Your task to perform on an android device: Show the shopping cart on costco. Add "macbook pro" to the cart on costco Image 0: 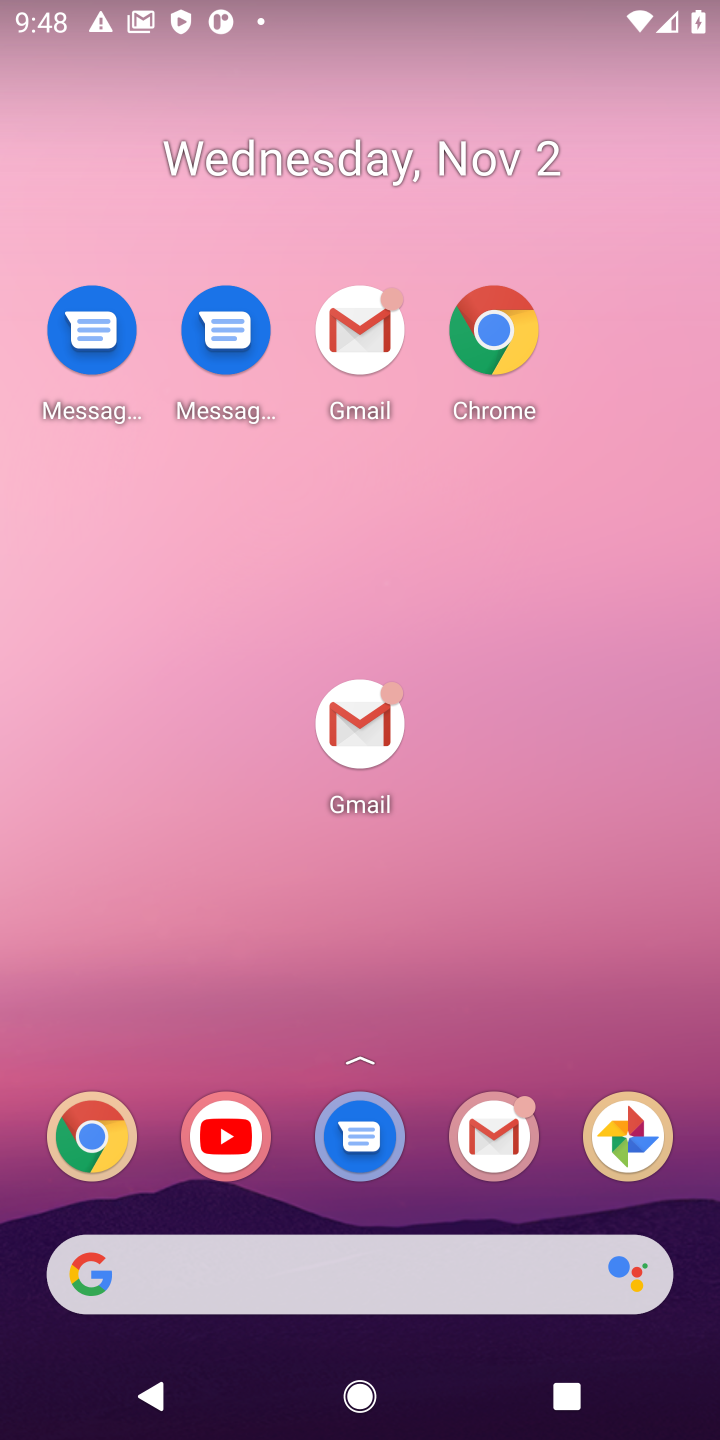
Step 0: drag from (474, 1147) to (428, 331)
Your task to perform on an android device: Show the shopping cart on costco. Add "macbook pro" to the cart on costco Image 1: 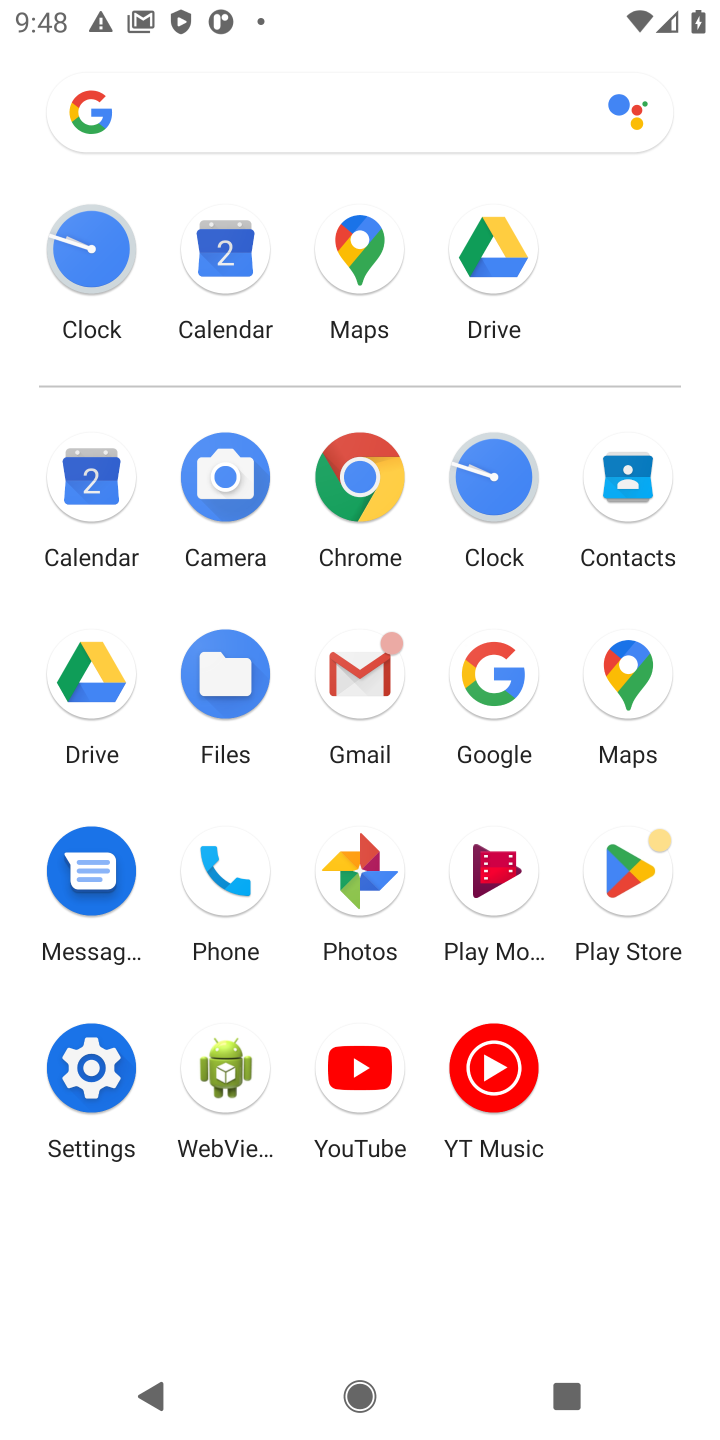
Step 1: click (476, 660)
Your task to perform on an android device: Show the shopping cart on costco. Add "macbook pro" to the cart on costco Image 2: 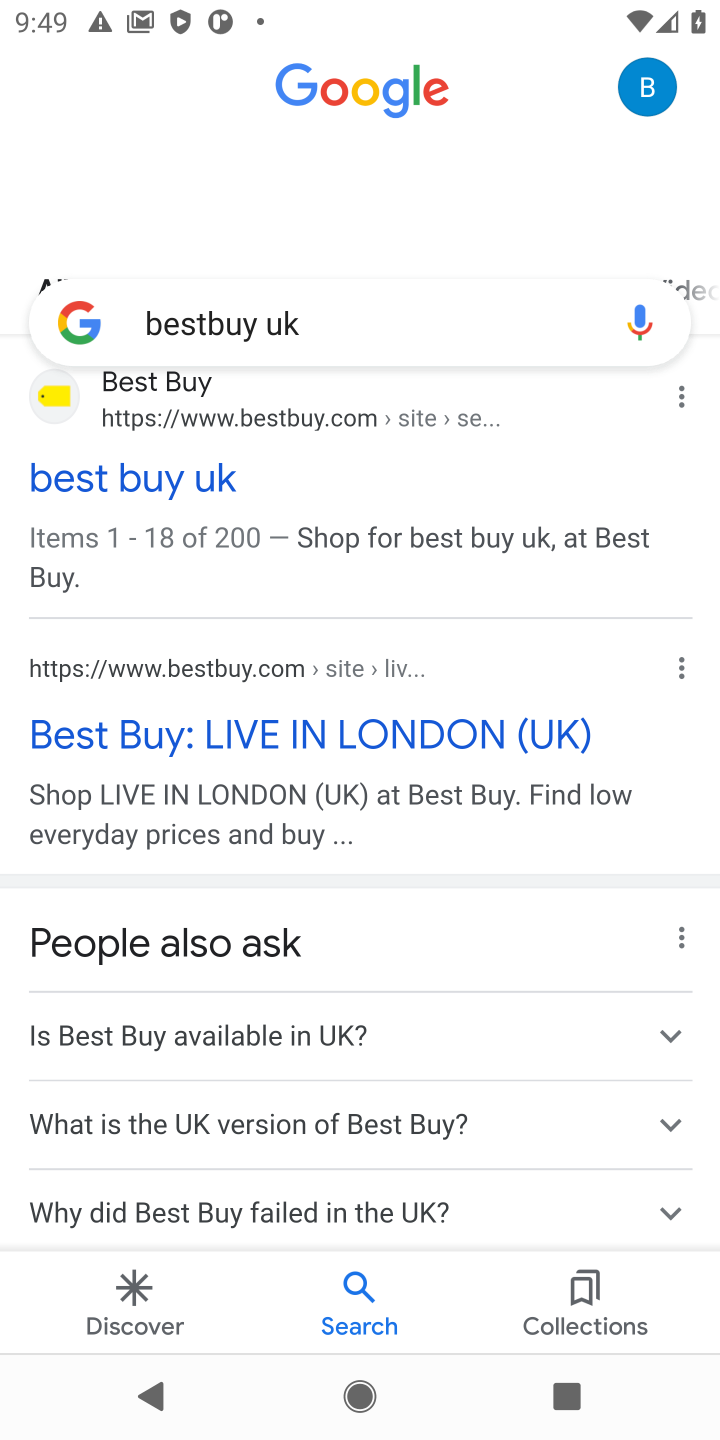
Step 2: click (319, 325)
Your task to perform on an android device: Show the shopping cart on costco. Add "macbook pro" to the cart on costco Image 3: 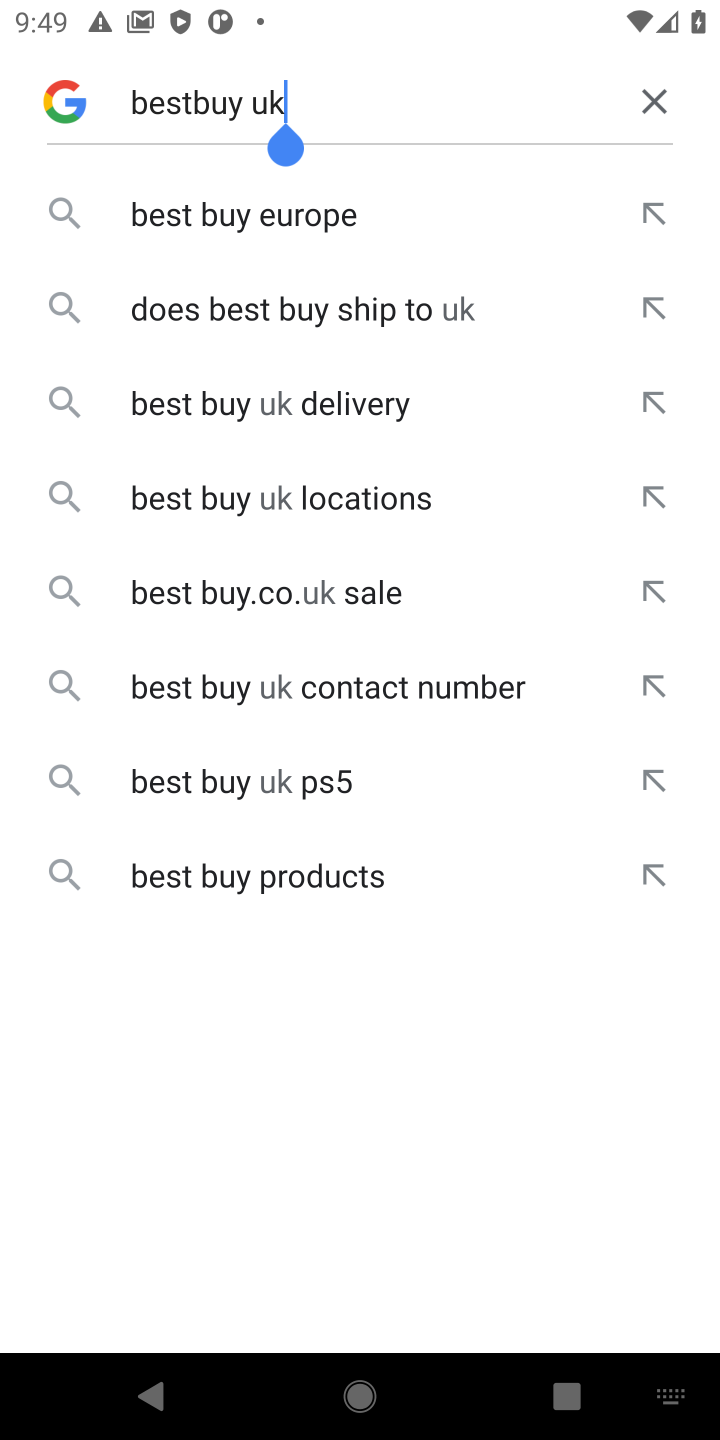
Step 3: click (666, 104)
Your task to perform on an android device: Show the shopping cart on costco. Add "macbook pro" to the cart on costco Image 4: 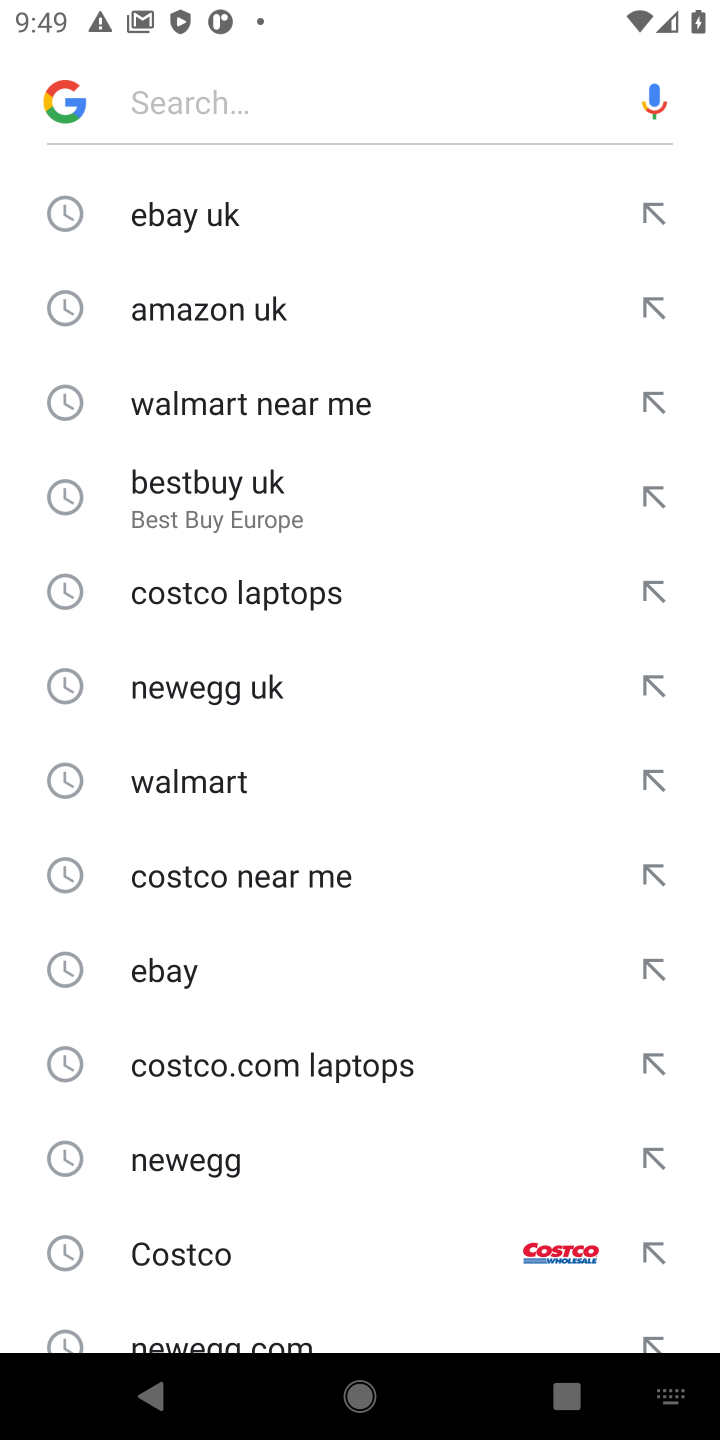
Step 4: drag from (278, 121) to (346, 66)
Your task to perform on an android device: Show the shopping cart on costco. Add "macbook pro" to the cart on costco Image 5: 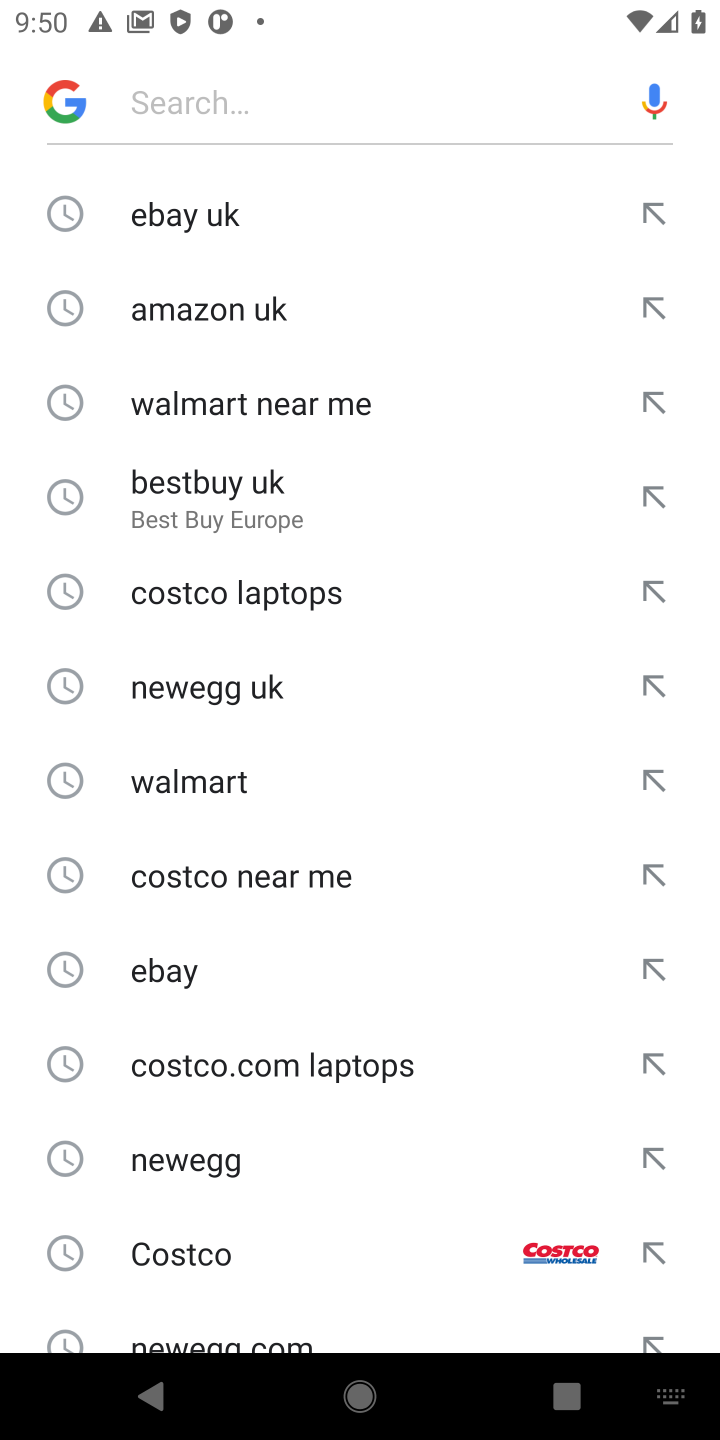
Step 5: click (212, 85)
Your task to perform on an android device: Show the shopping cart on costco. Add "macbook pro" to the cart on costco Image 6: 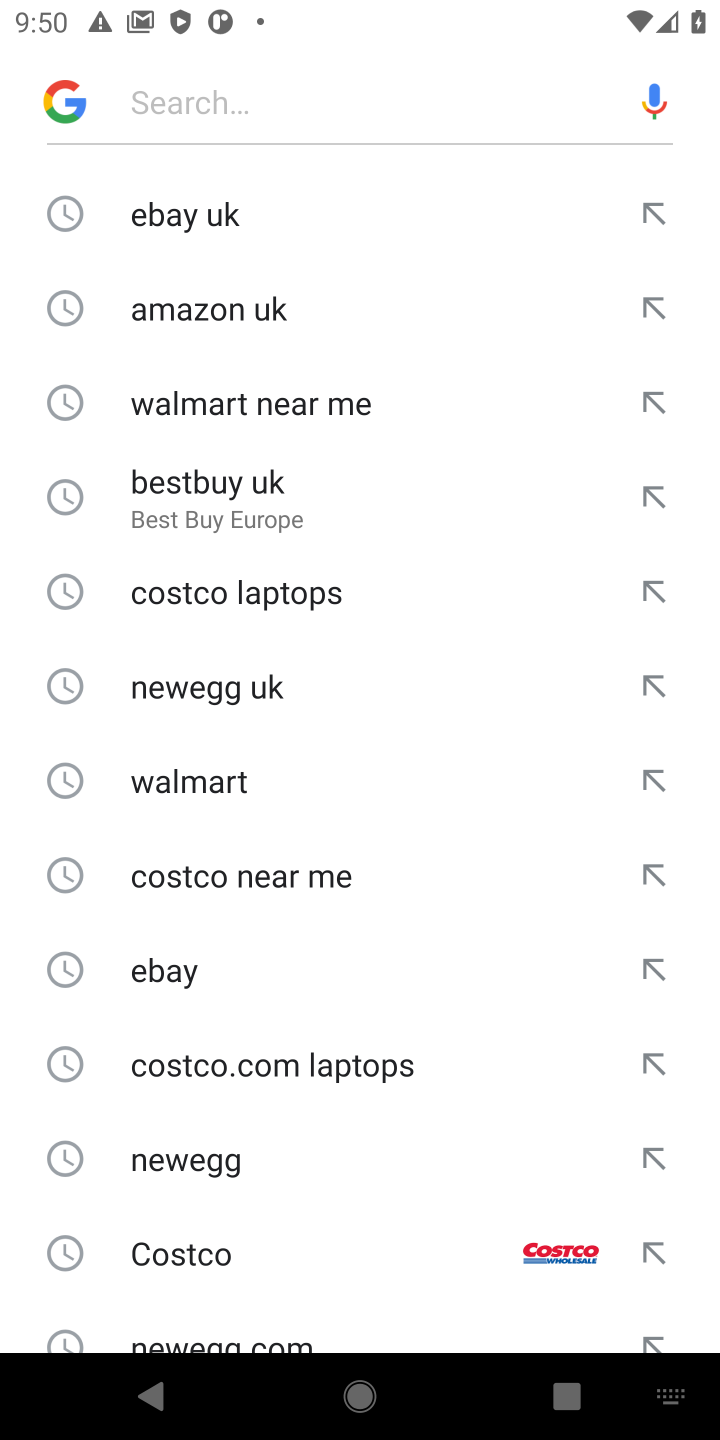
Step 6: type "costco "
Your task to perform on an android device: Show the shopping cart on costco. Add "macbook pro" to the cart on costco Image 7: 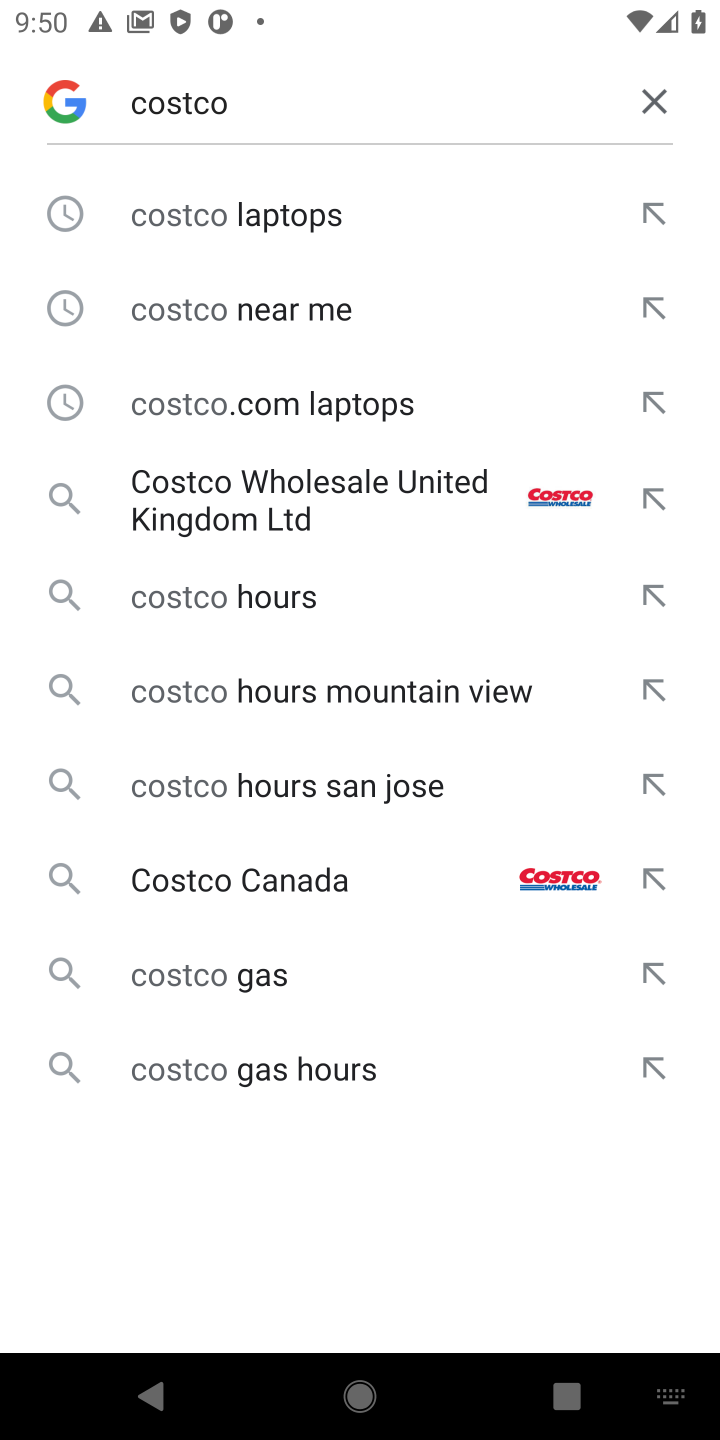
Step 7: click (268, 323)
Your task to perform on an android device: Show the shopping cart on costco. Add "macbook pro" to the cart on costco Image 8: 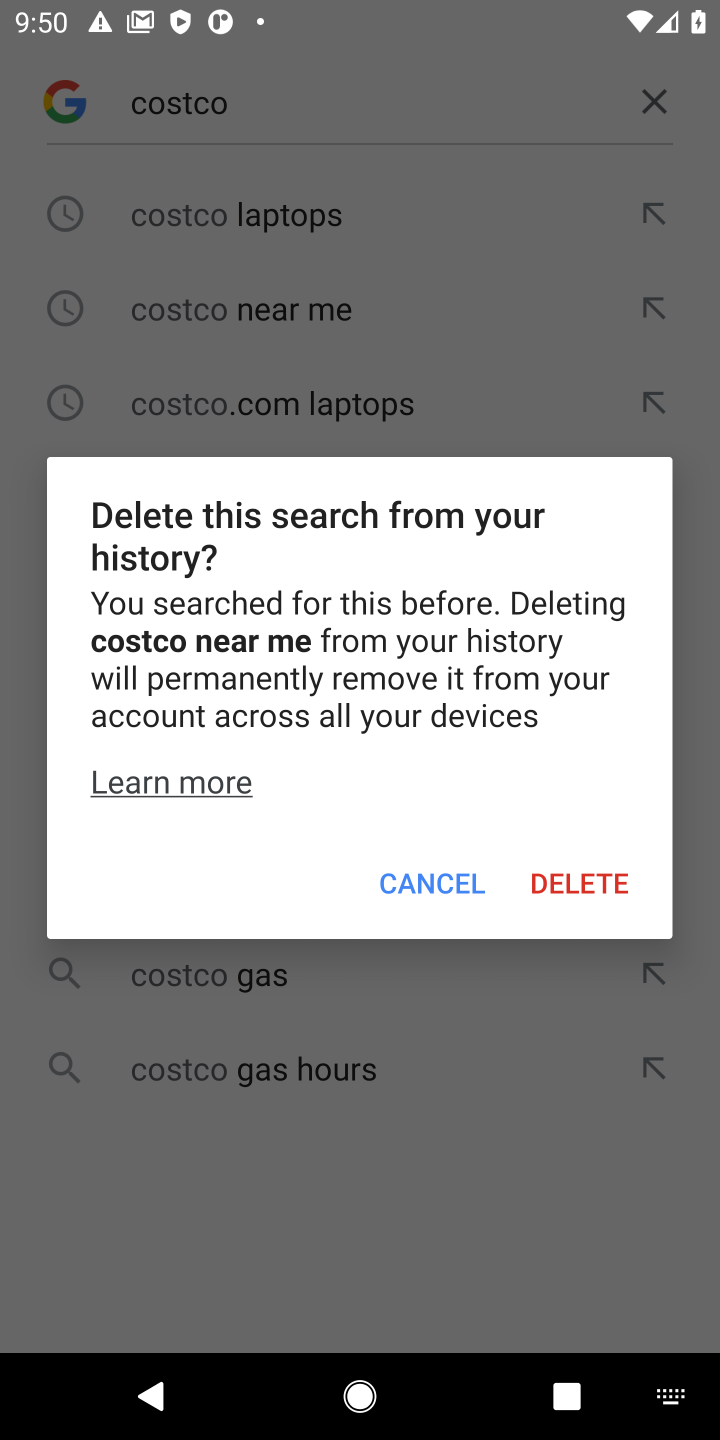
Step 8: click (387, 902)
Your task to perform on an android device: Show the shopping cart on costco. Add "macbook pro" to the cart on costco Image 9: 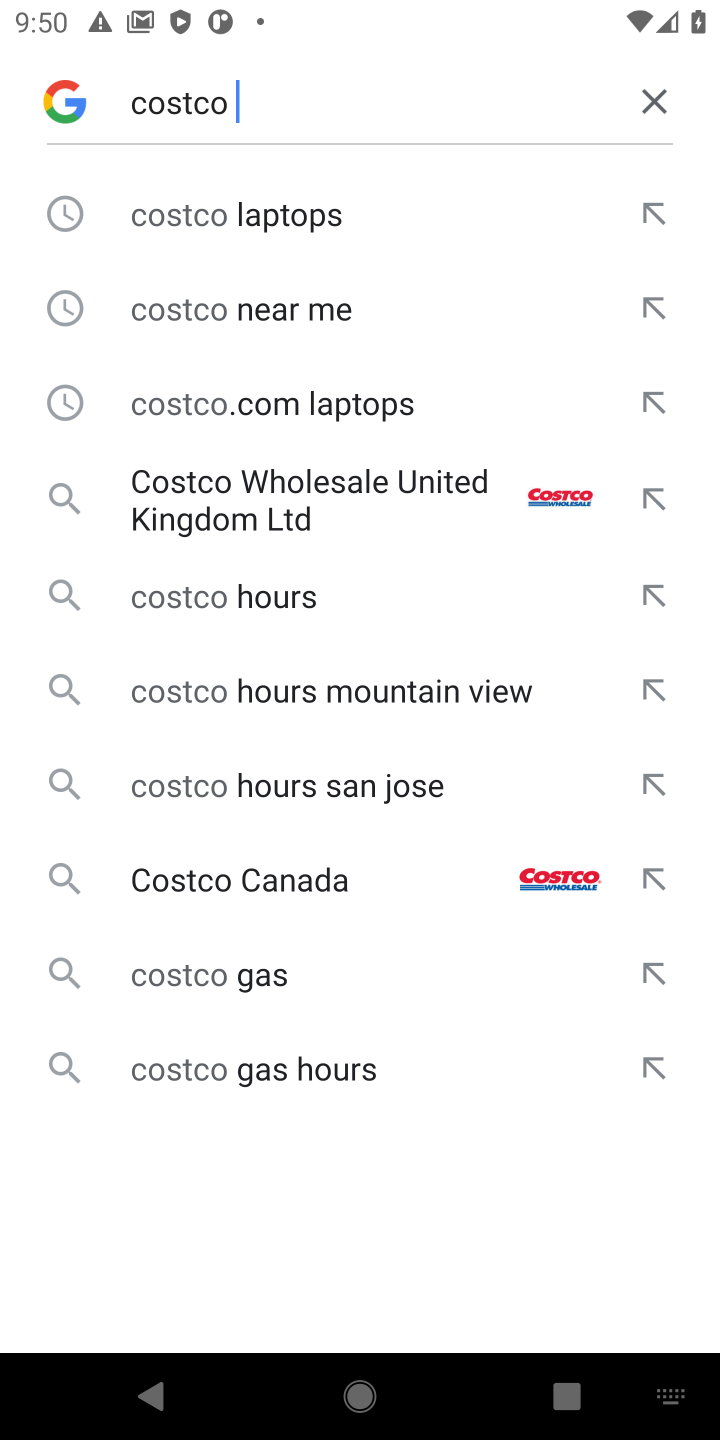
Step 9: click (316, 613)
Your task to perform on an android device: Show the shopping cart on costco. Add "macbook pro" to the cart on costco Image 10: 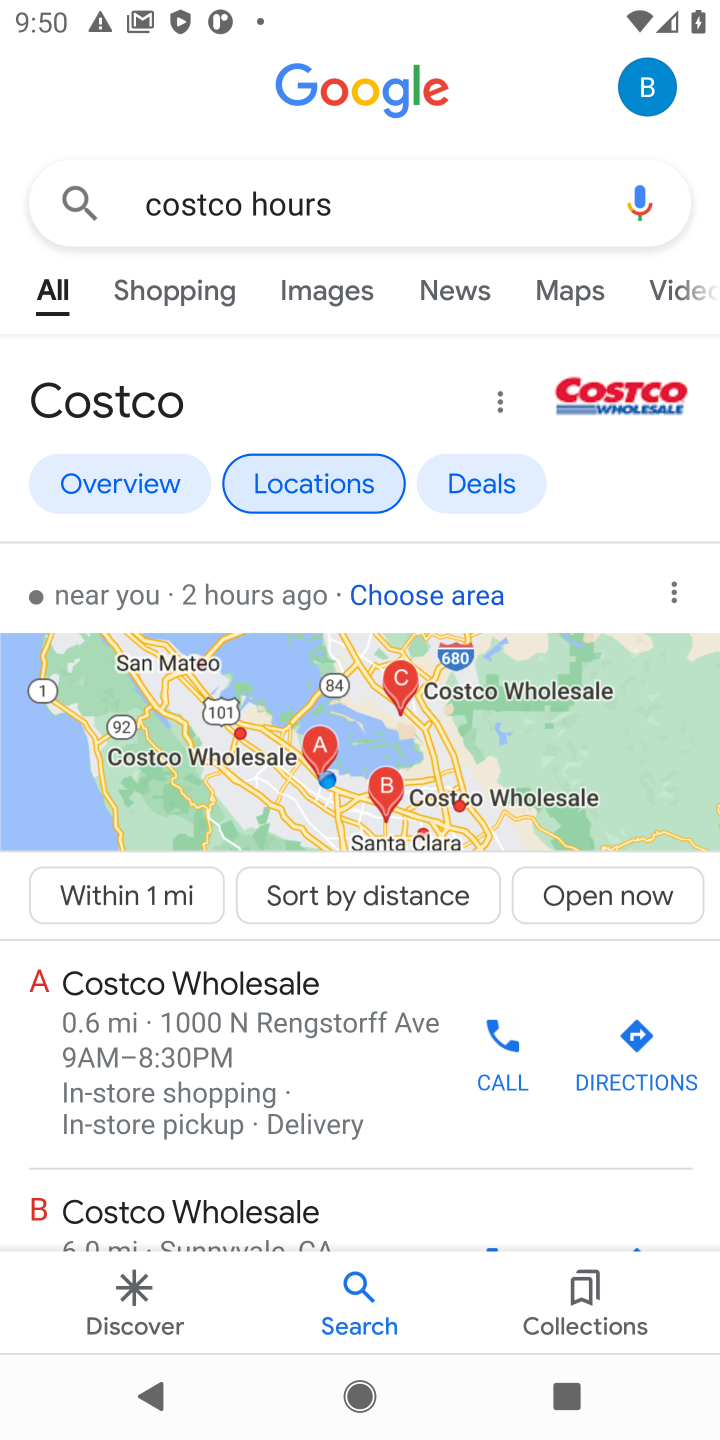
Step 10: drag from (140, 1221) to (225, 446)
Your task to perform on an android device: Show the shopping cart on costco. Add "macbook pro" to the cart on costco Image 11: 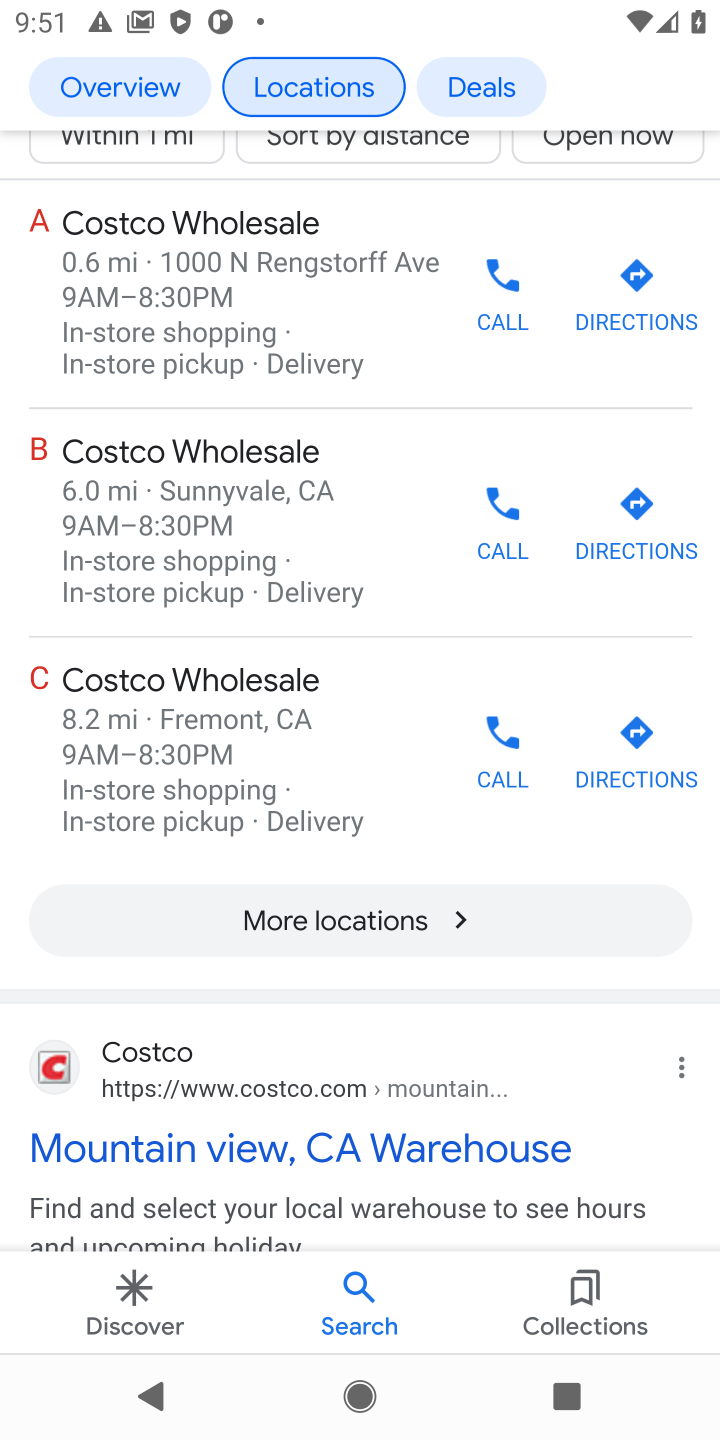
Step 11: click (46, 1058)
Your task to perform on an android device: Show the shopping cart on costco. Add "macbook pro" to the cart on costco Image 12: 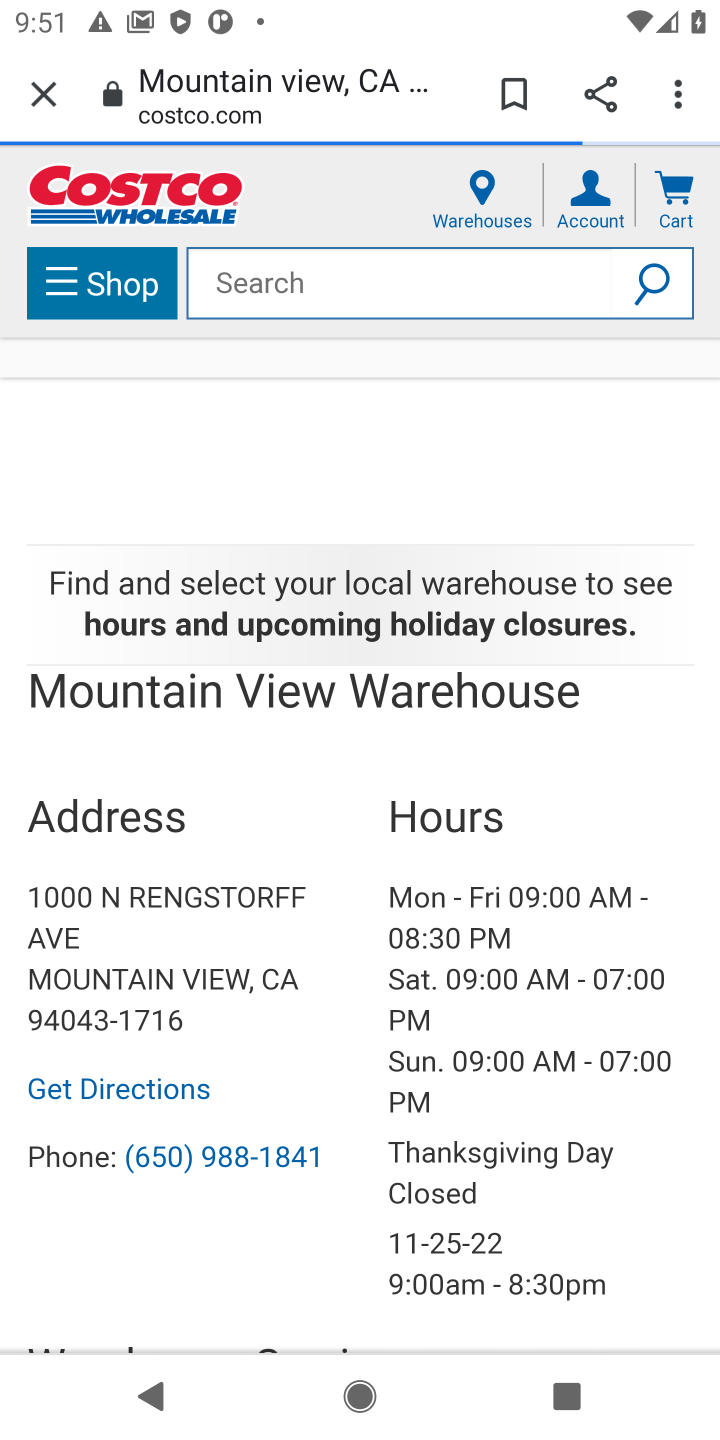
Step 12: click (350, 263)
Your task to perform on an android device: Show the shopping cart on costco. Add "macbook pro" to the cart on costco Image 13: 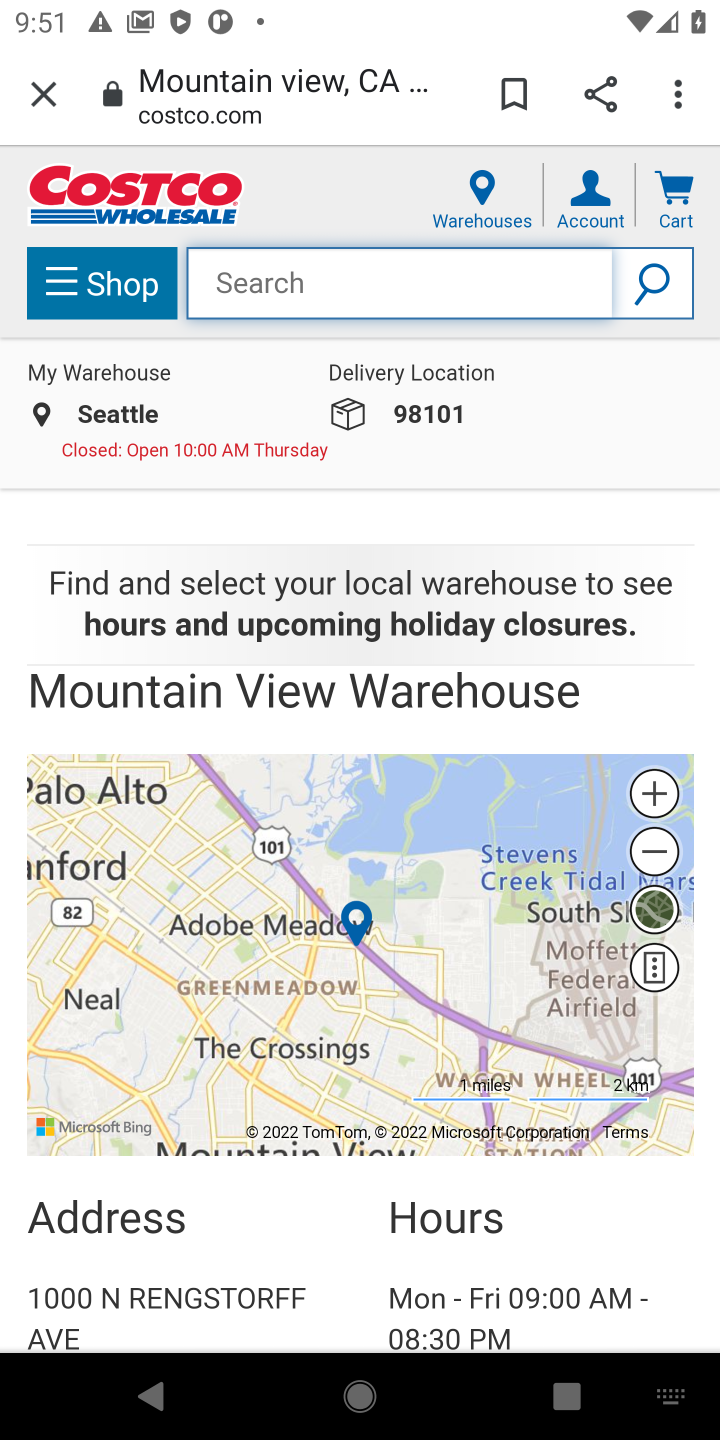
Step 13: click (318, 287)
Your task to perform on an android device: Show the shopping cart on costco. Add "macbook pro" to the cart on costco Image 14: 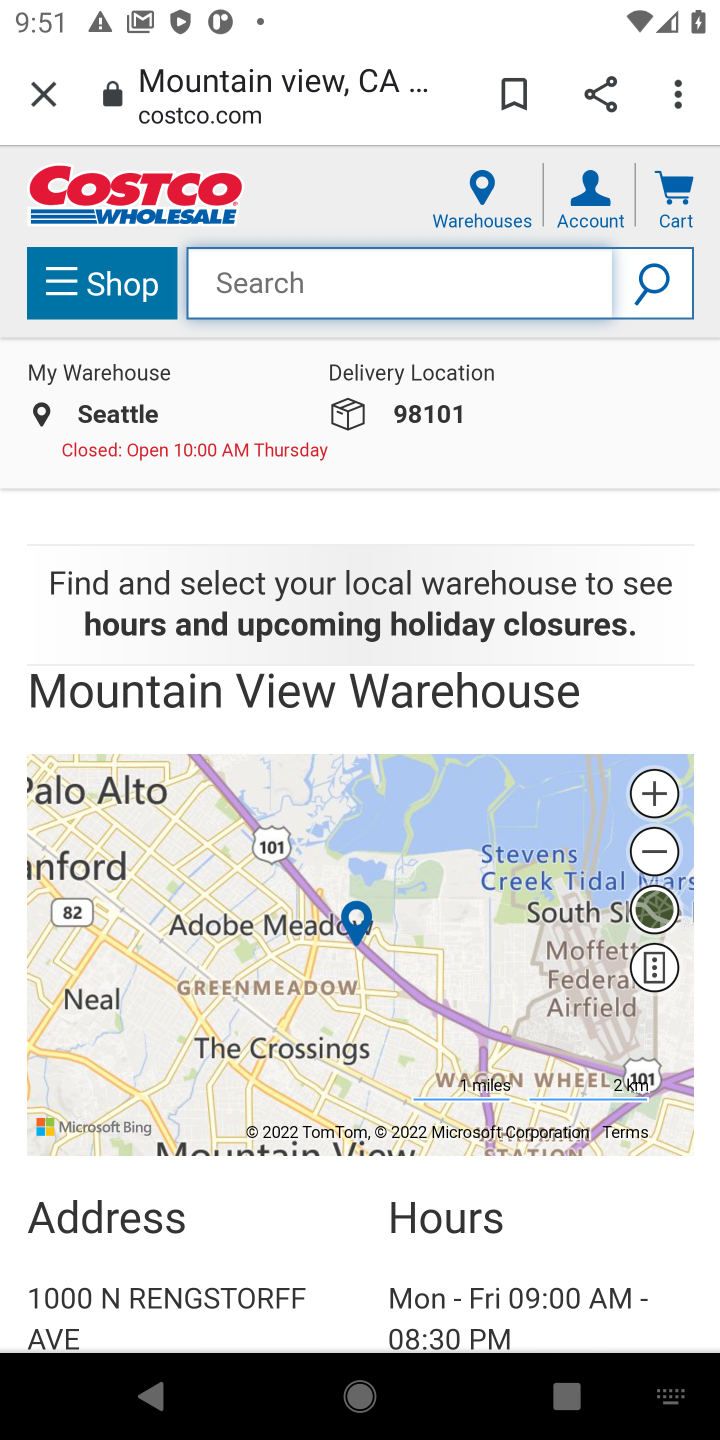
Step 14: type "macbook pro" "
Your task to perform on an android device: Show the shopping cart on costco. Add "macbook pro" to the cart on costco Image 15: 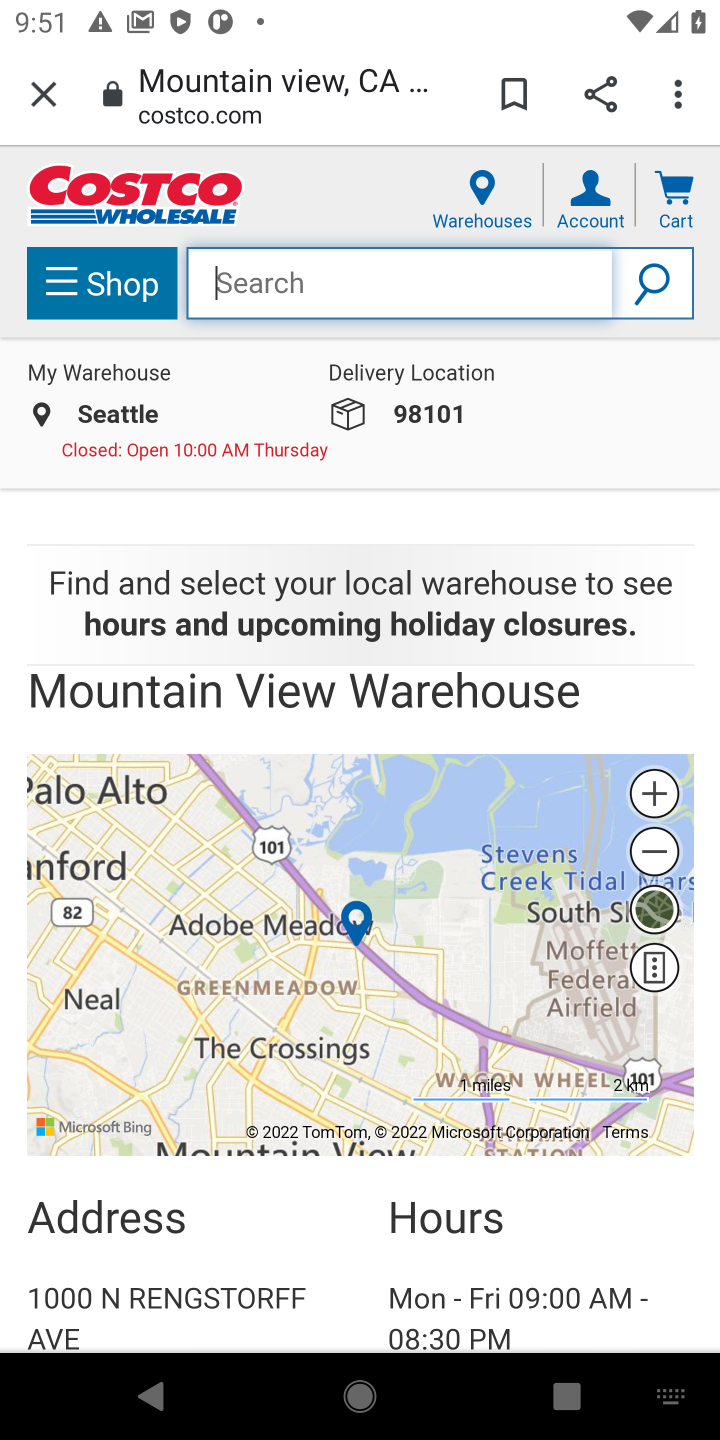
Step 15: click (387, 256)
Your task to perform on an android device: Show the shopping cart on costco. Add "macbook pro" to the cart on costco Image 16: 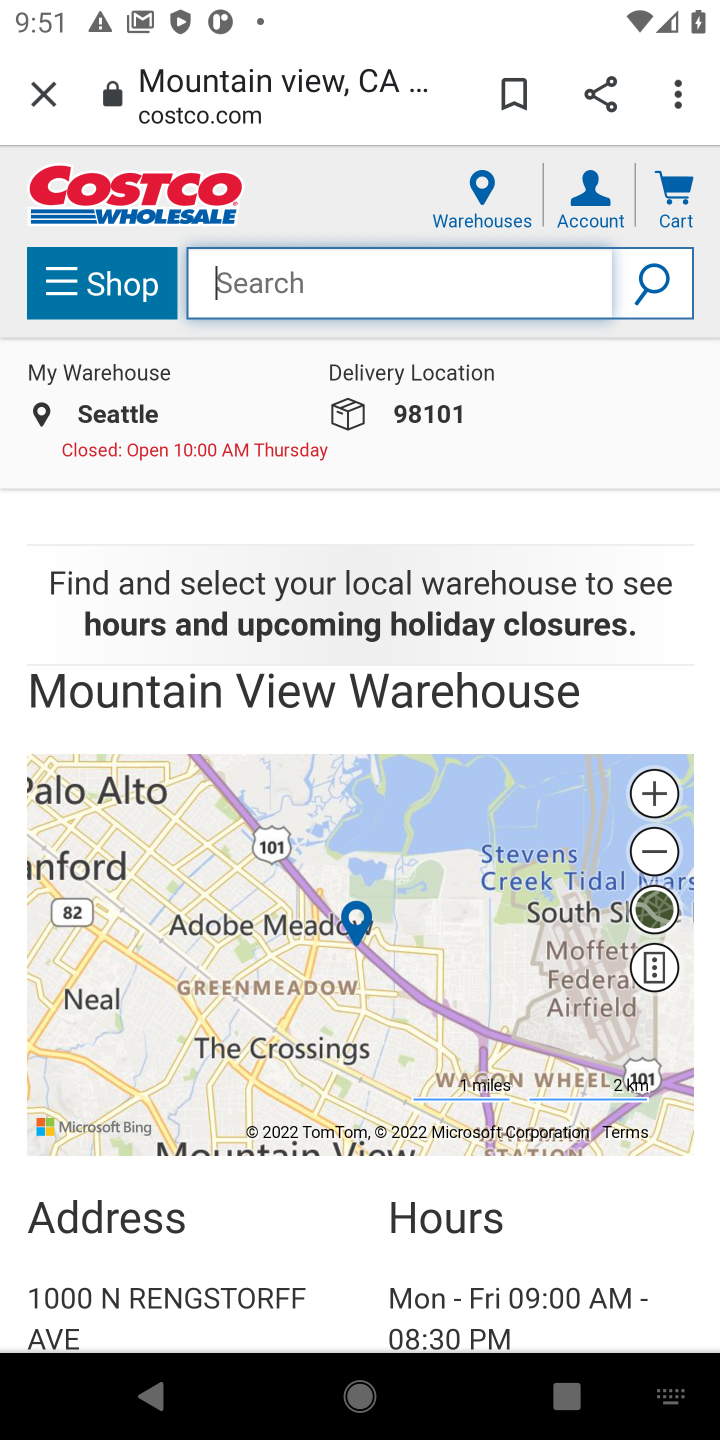
Step 16: type "macbook pro "
Your task to perform on an android device: Show the shopping cart on costco. Add "macbook pro" to the cart on costco Image 17: 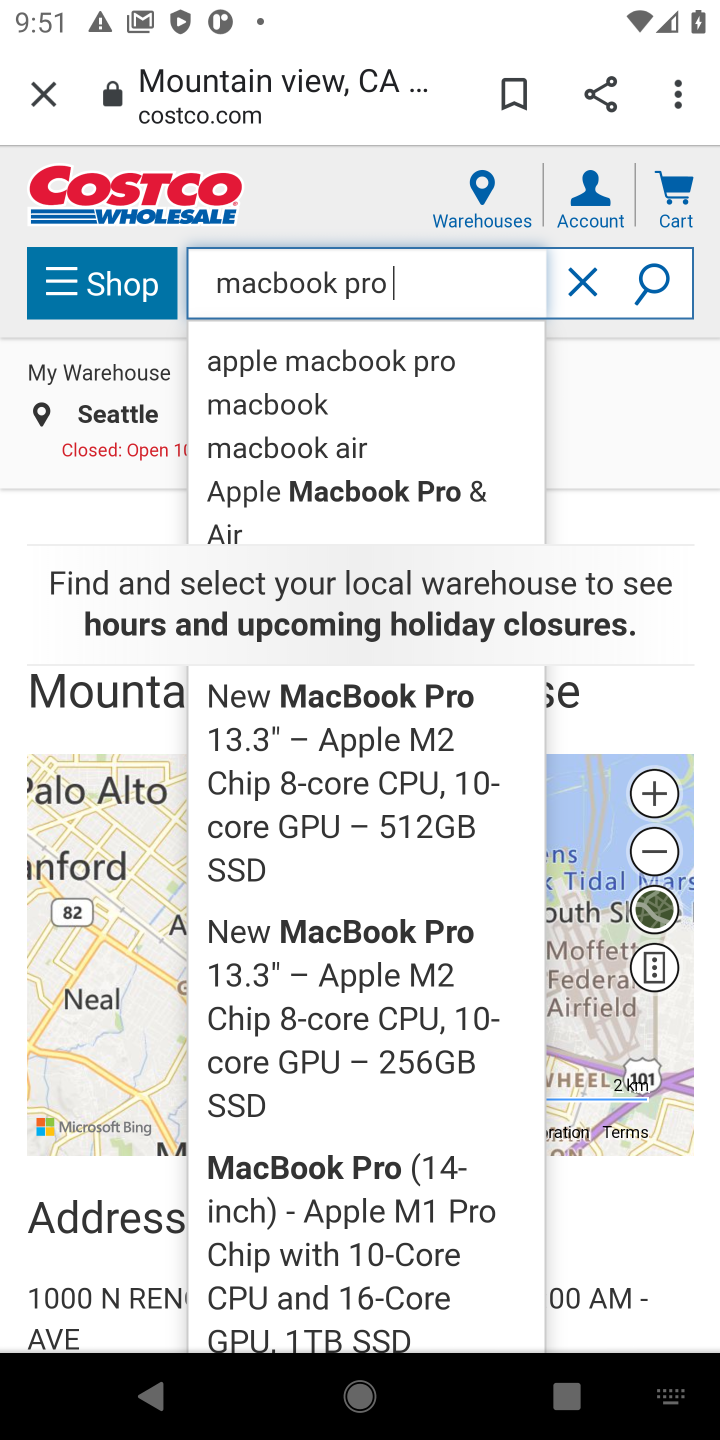
Step 17: click (392, 363)
Your task to perform on an android device: Show the shopping cart on costco. Add "macbook pro" to the cart on costco Image 18: 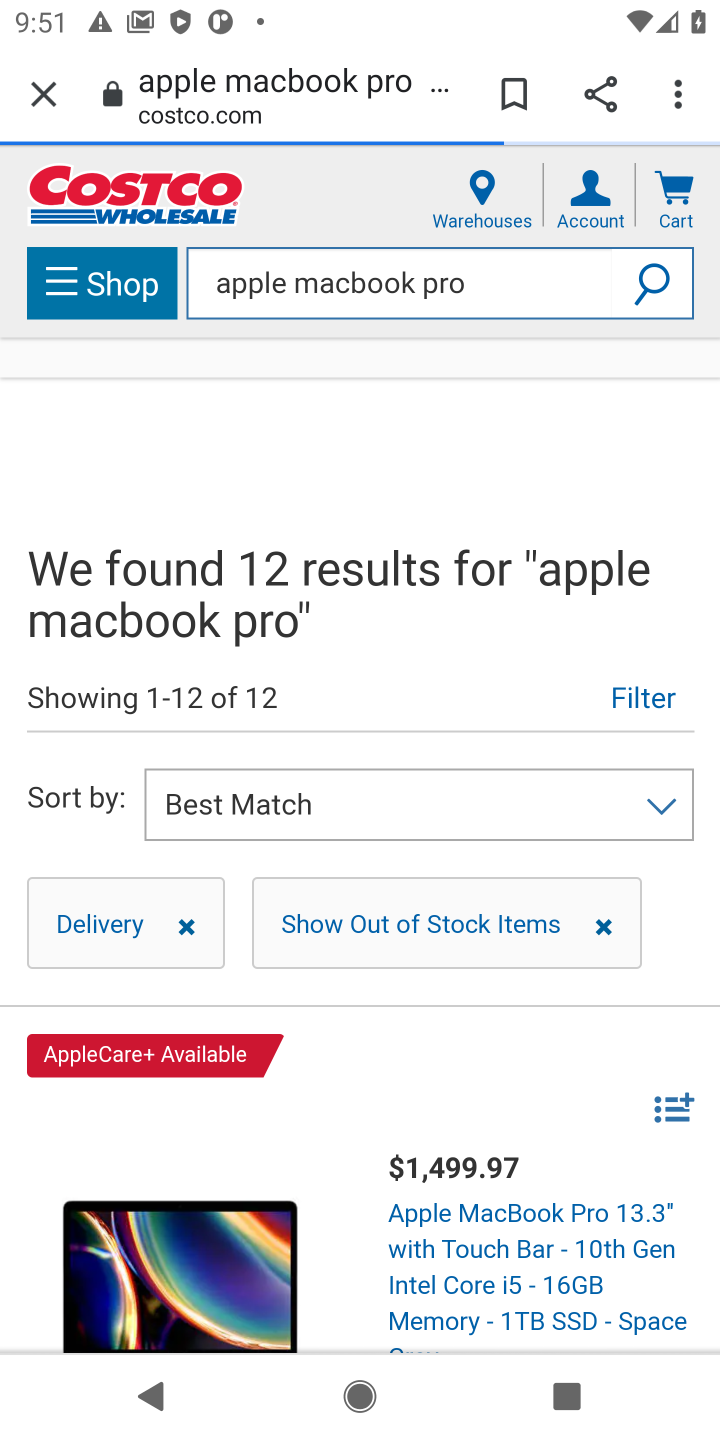
Step 18: drag from (183, 1219) to (273, 550)
Your task to perform on an android device: Show the shopping cart on costco. Add "macbook pro" to the cart on costco Image 19: 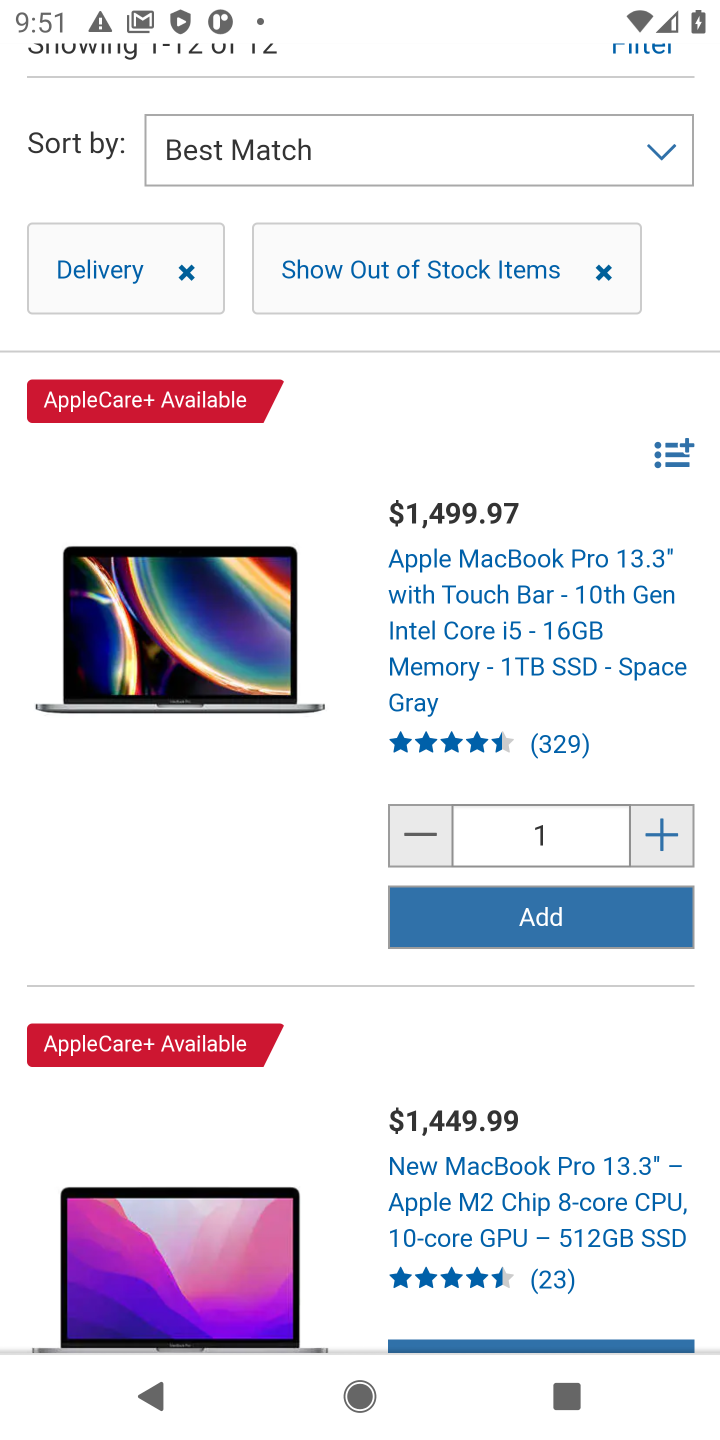
Step 19: click (547, 901)
Your task to perform on an android device: Show the shopping cart on costco. Add "macbook pro" to the cart on costco Image 20: 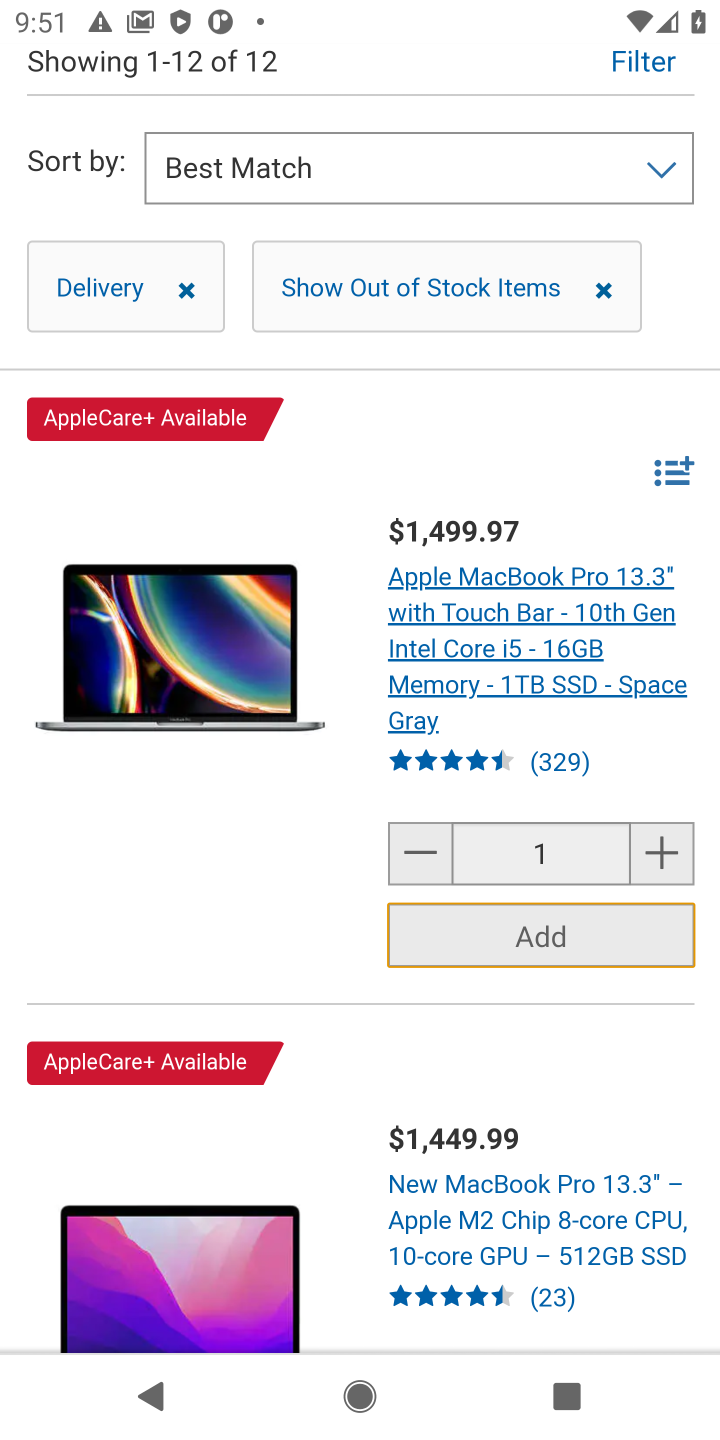
Step 20: task complete